Your task to perform on an android device: What's the weather like in Tokyo? Image 0: 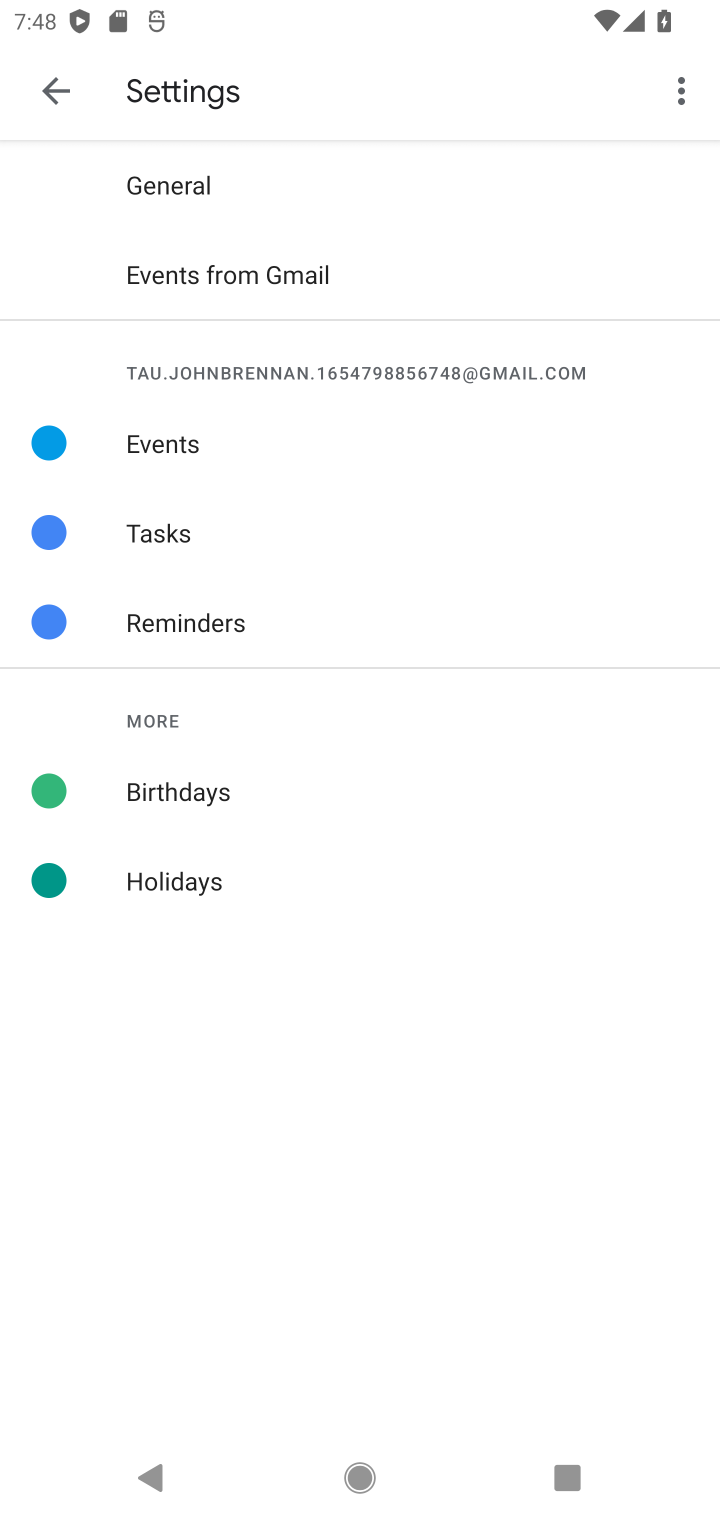
Step 0: press home button
Your task to perform on an android device: What's the weather like in Tokyo? Image 1: 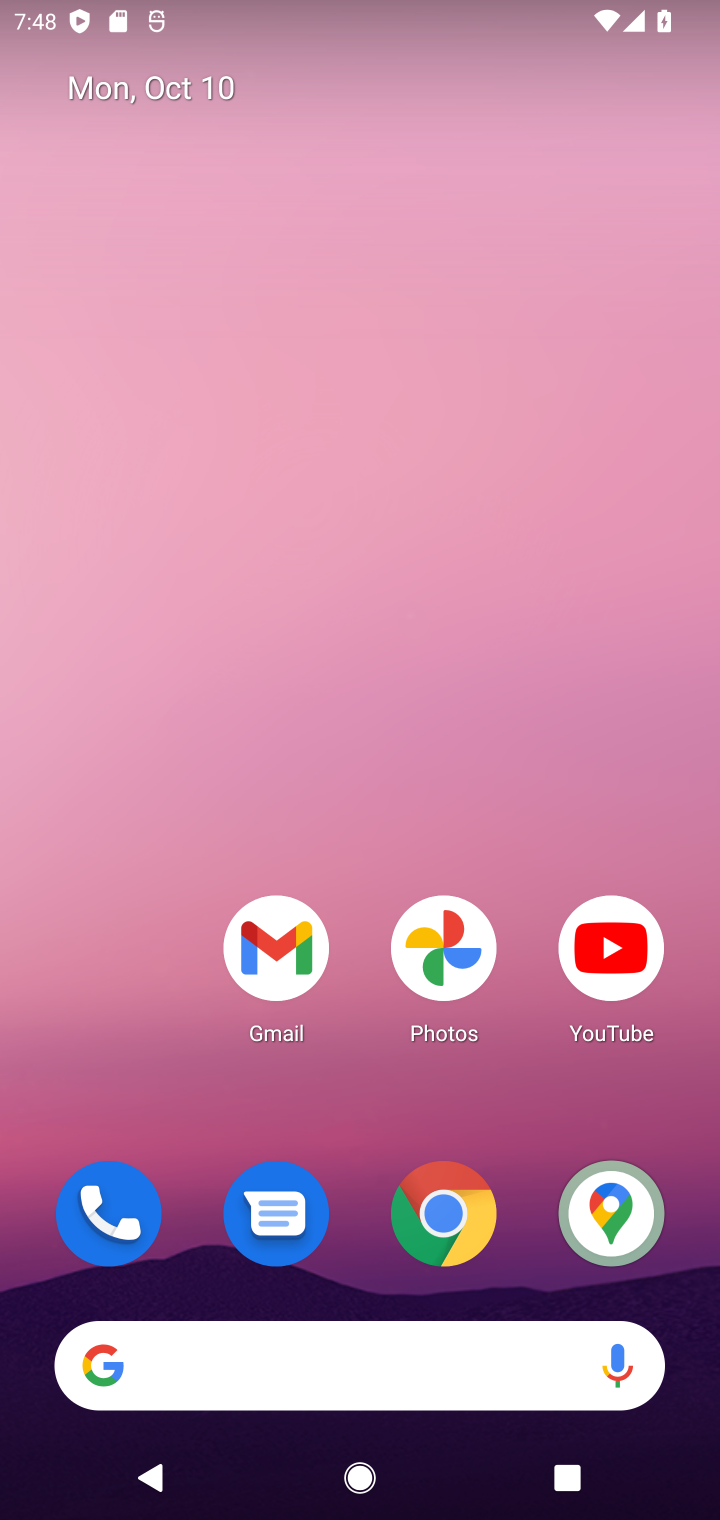
Step 1: click (250, 1402)
Your task to perform on an android device: What's the weather like in Tokyo? Image 2: 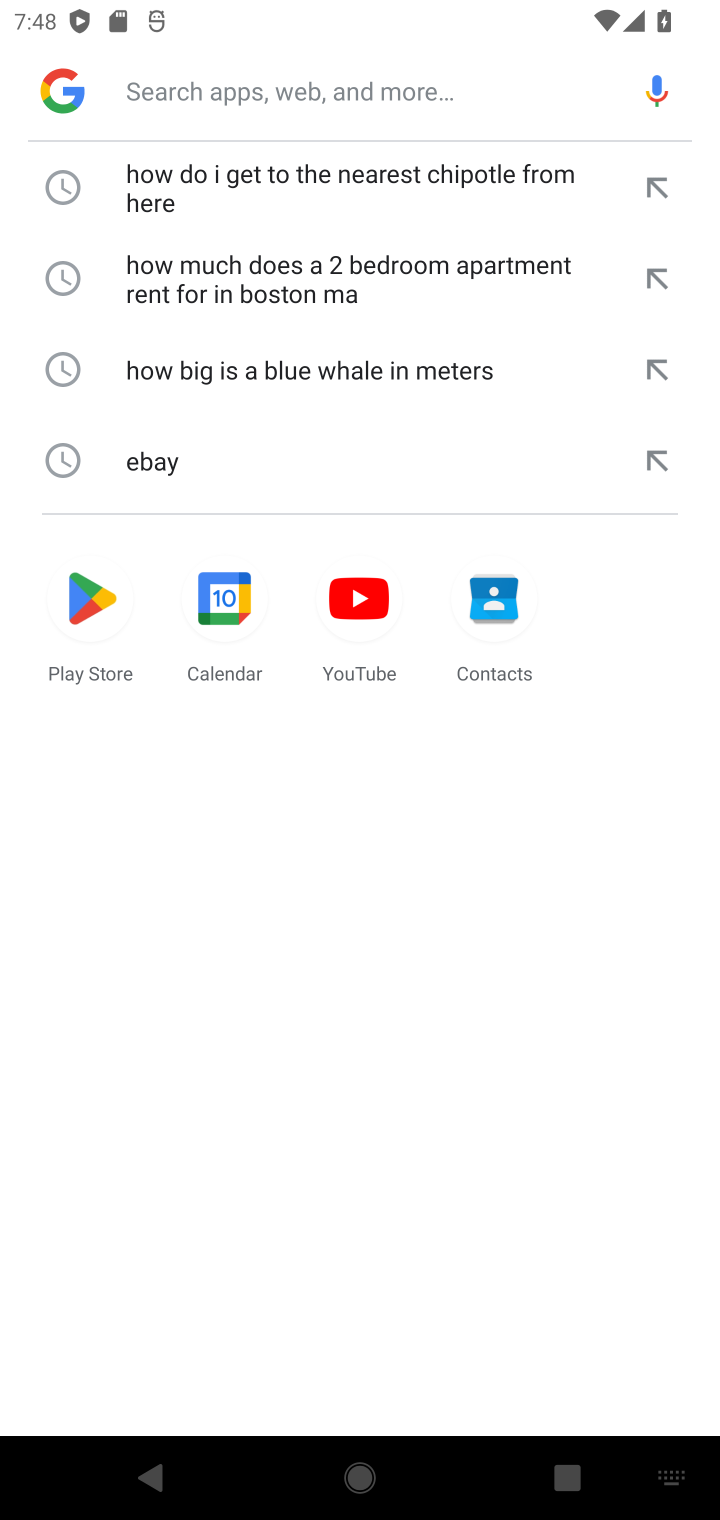
Step 2: click (238, 74)
Your task to perform on an android device: What's the weather like in Tokyo? Image 3: 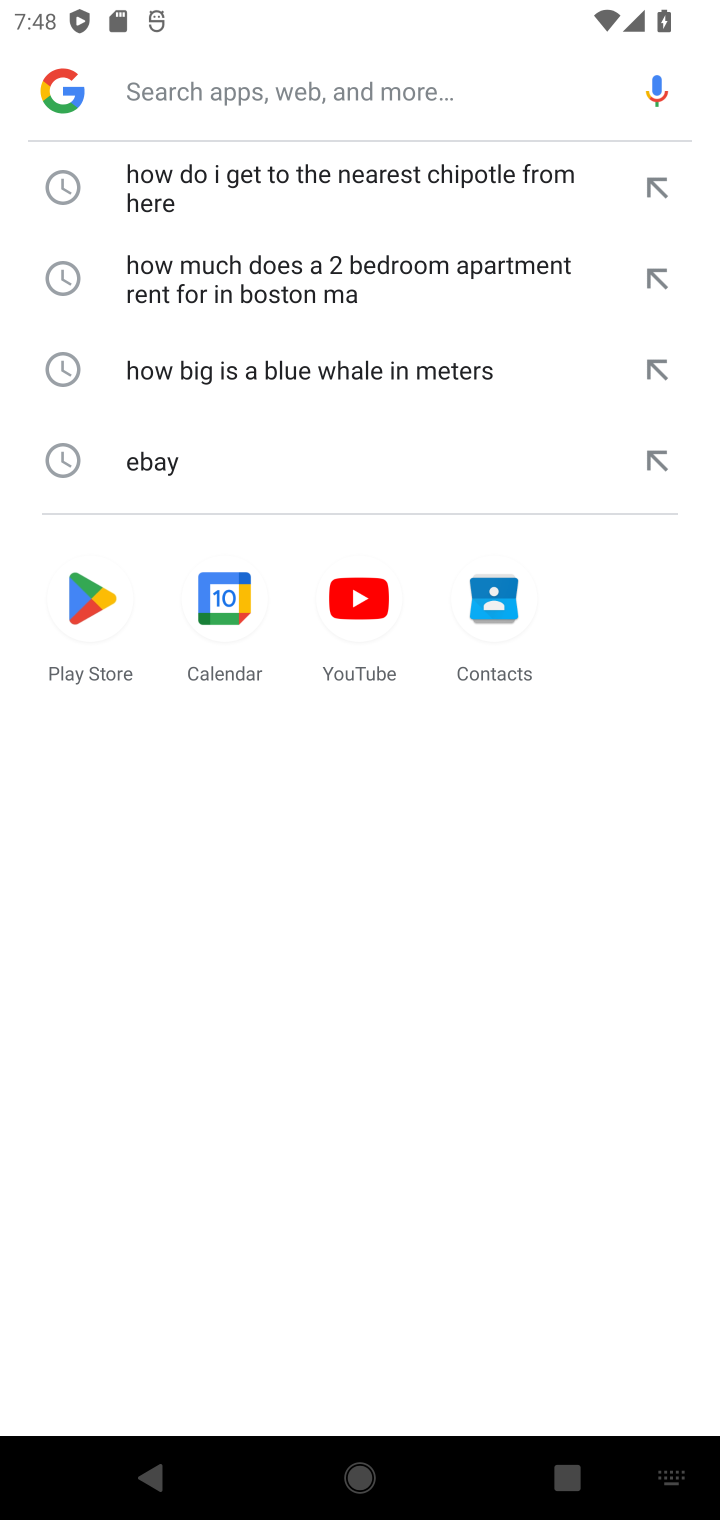
Step 3: type "What's the weather like in Tokyo?"
Your task to perform on an android device: What's the weather like in Tokyo? Image 4: 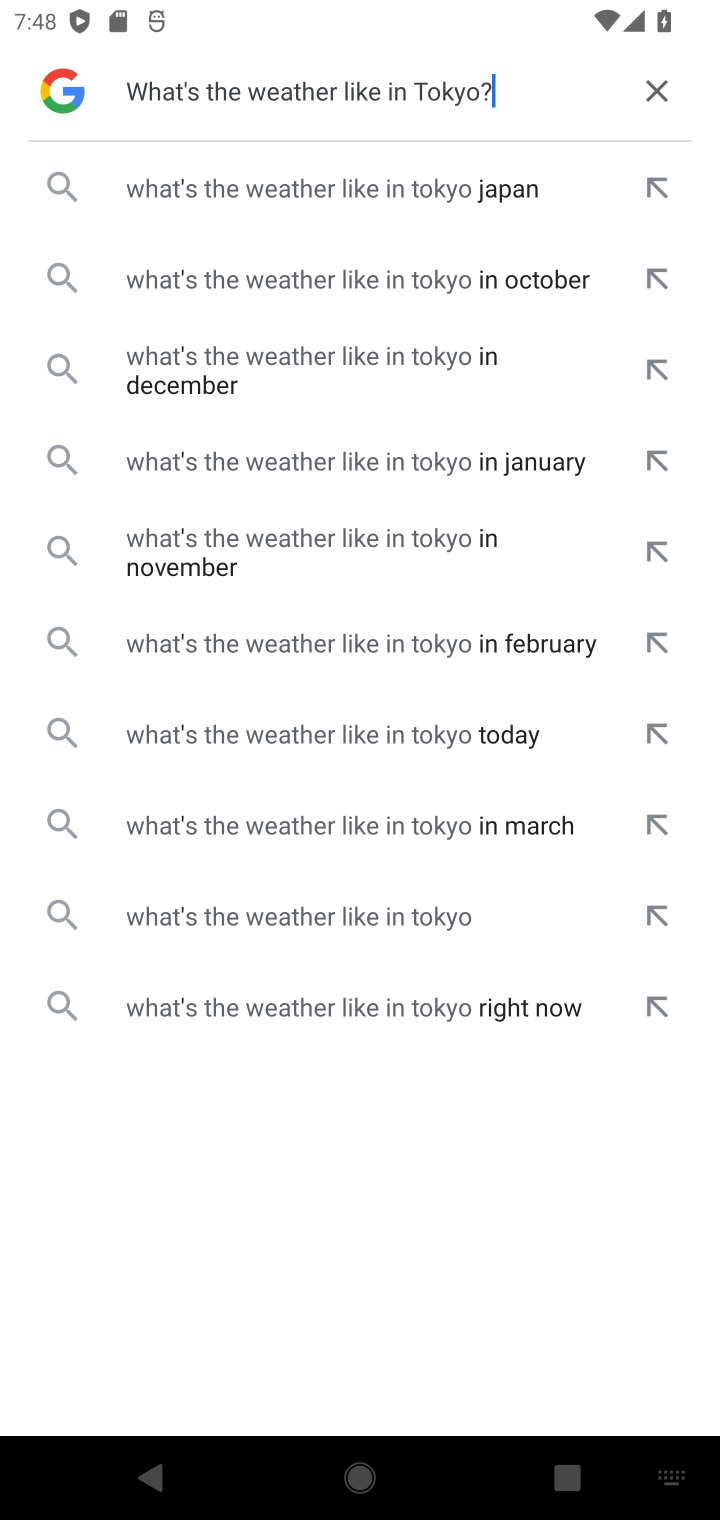
Step 4: click (197, 183)
Your task to perform on an android device: What's the weather like in Tokyo? Image 5: 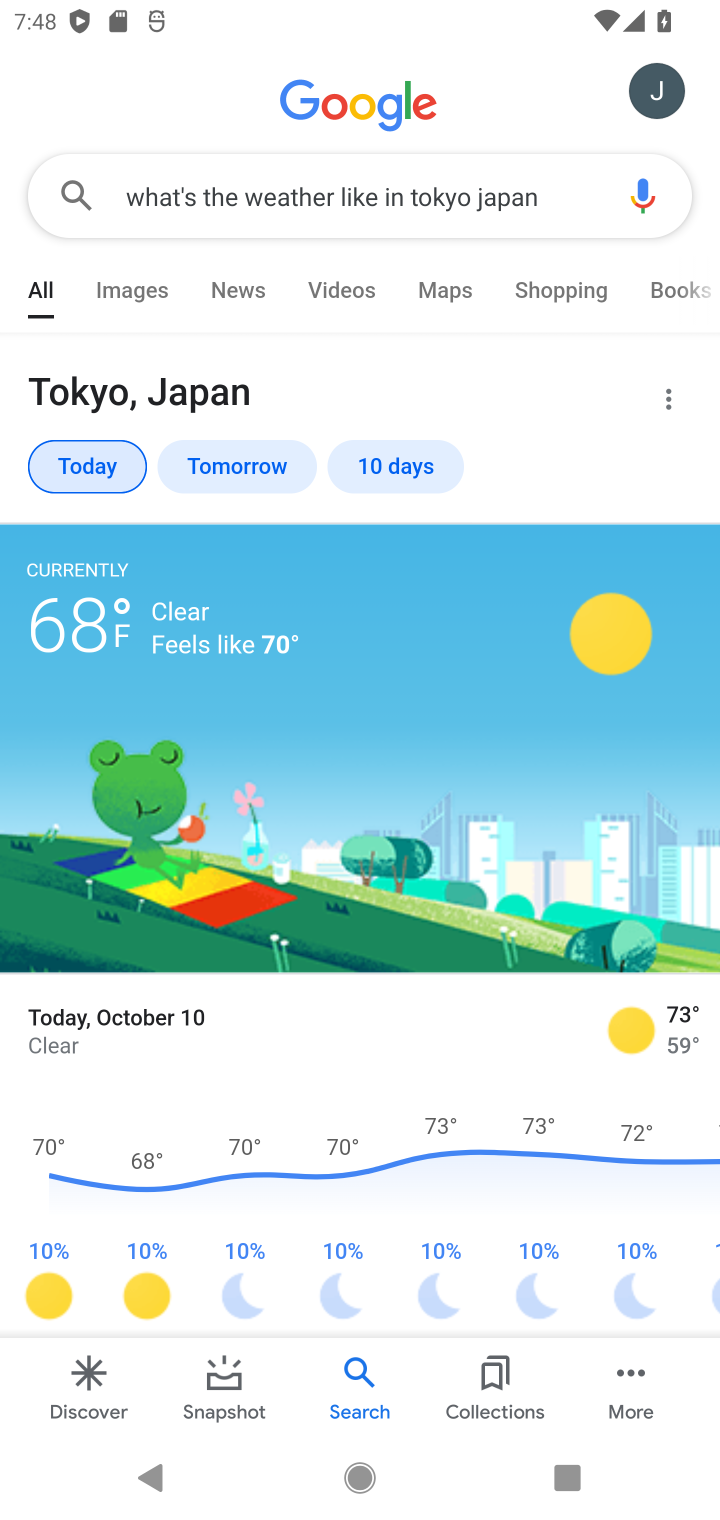
Step 5: task complete